Your task to perform on an android device: Open internet settings Image 0: 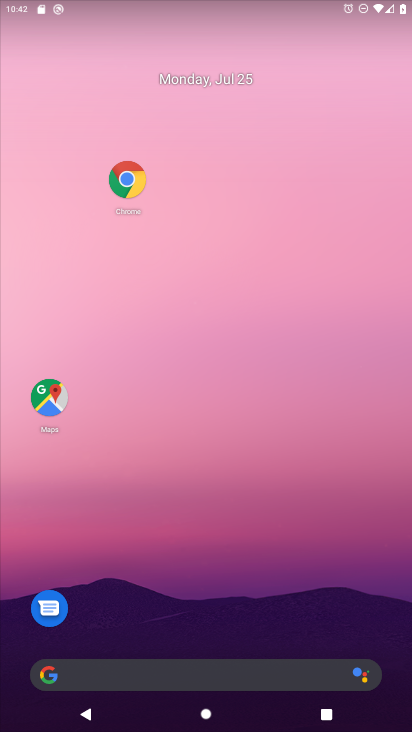
Step 0: drag from (150, 708) to (242, 11)
Your task to perform on an android device: Open internet settings Image 1: 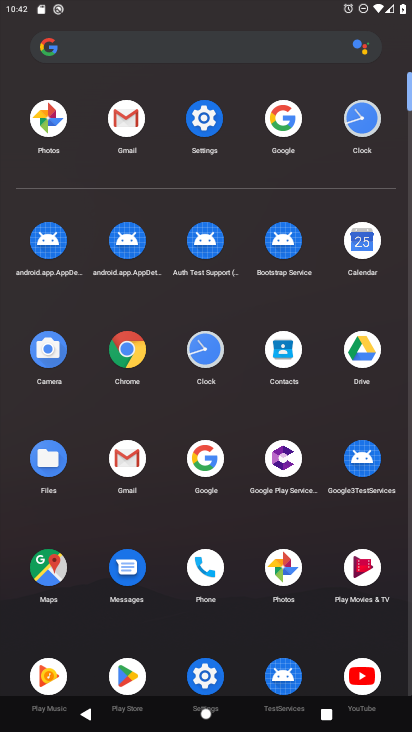
Step 1: click (199, 120)
Your task to perform on an android device: Open internet settings Image 2: 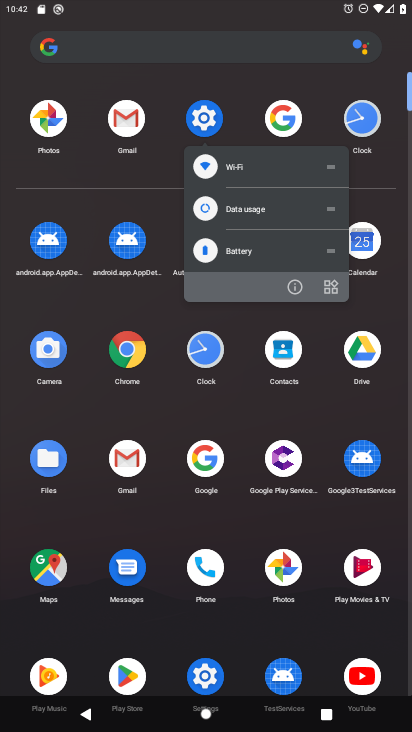
Step 2: click (199, 120)
Your task to perform on an android device: Open internet settings Image 3: 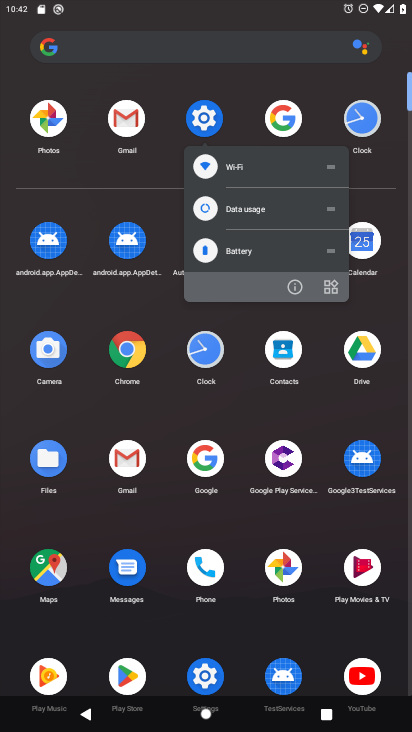
Step 3: click (199, 120)
Your task to perform on an android device: Open internet settings Image 4: 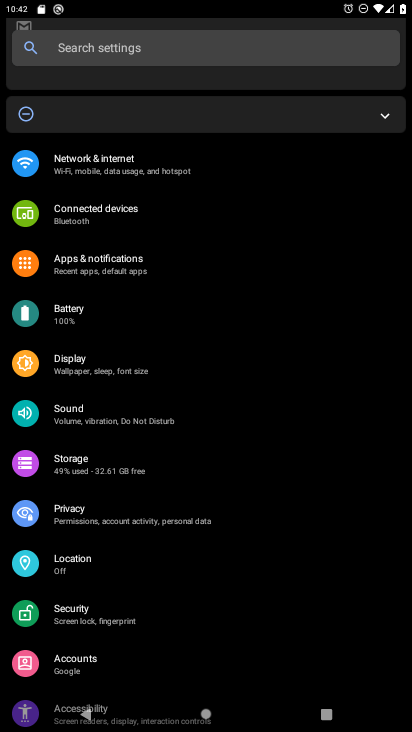
Step 4: click (249, 164)
Your task to perform on an android device: Open internet settings Image 5: 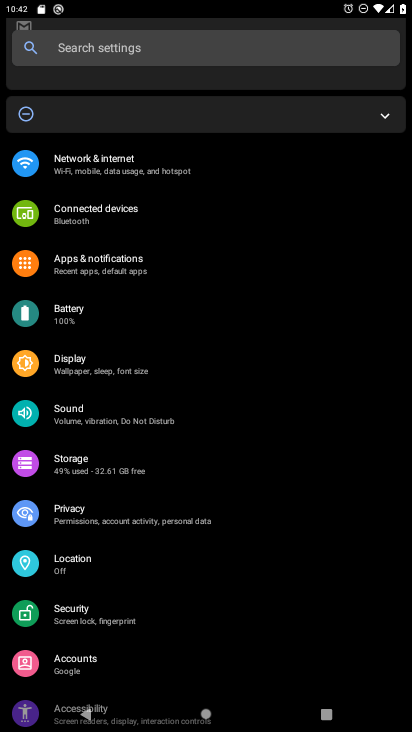
Step 5: click (249, 164)
Your task to perform on an android device: Open internet settings Image 6: 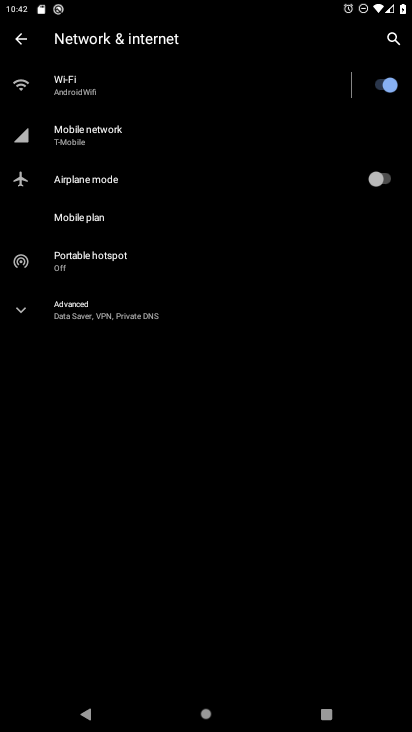
Step 6: task complete